Your task to perform on an android device: Open the calendar app, open the side menu, and click the "Day" option Image 0: 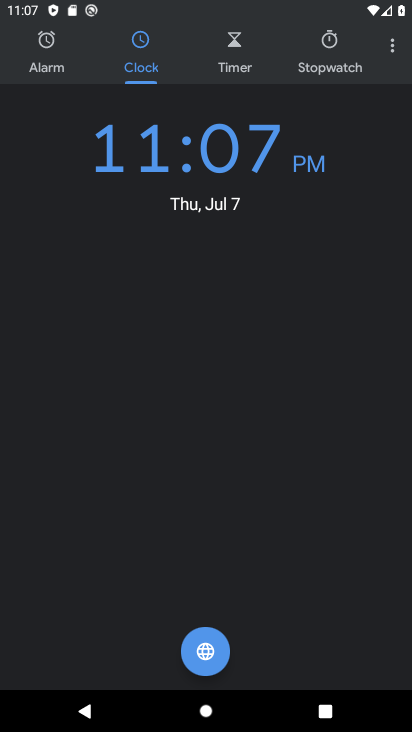
Step 0: press home button
Your task to perform on an android device: Open the calendar app, open the side menu, and click the "Day" option Image 1: 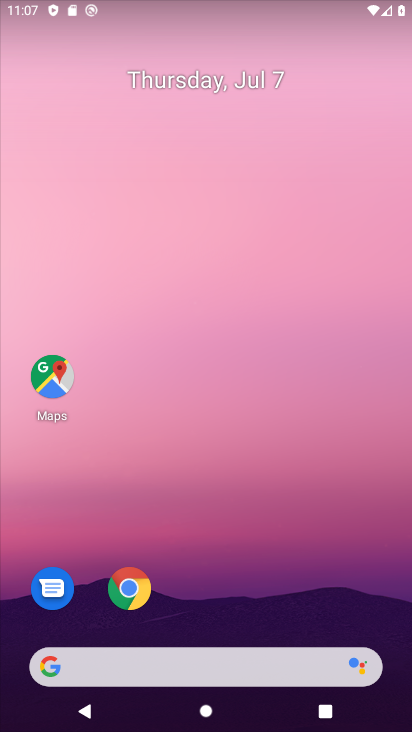
Step 1: drag from (269, 527) to (128, 28)
Your task to perform on an android device: Open the calendar app, open the side menu, and click the "Day" option Image 2: 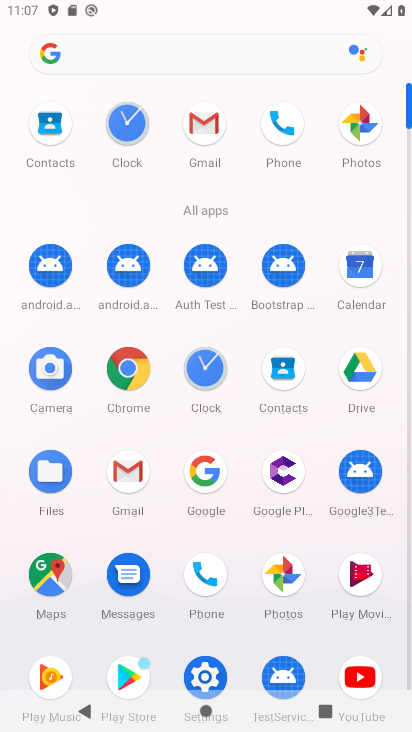
Step 2: click (358, 271)
Your task to perform on an android device: Open the calendar app, open the side menu, and click the "Day" option Image 3: 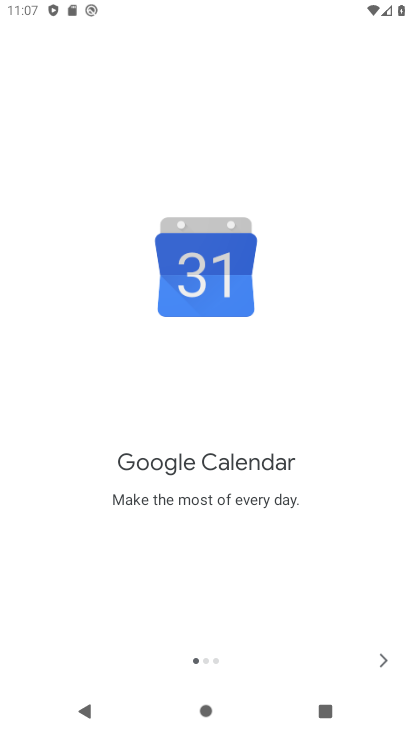
Step 3: click (383, 659)
Your task to perform on an android device: Open the calendar app, open the side menu, and click the "Day" option Image 4: 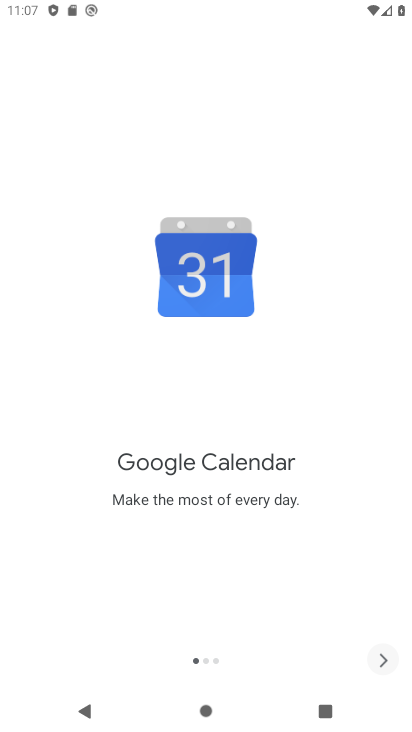
Step 4: click (383, 659)
Your task to perform on an android device: Open the calendar app, open the side menu, and click the "Day" option Image 5: 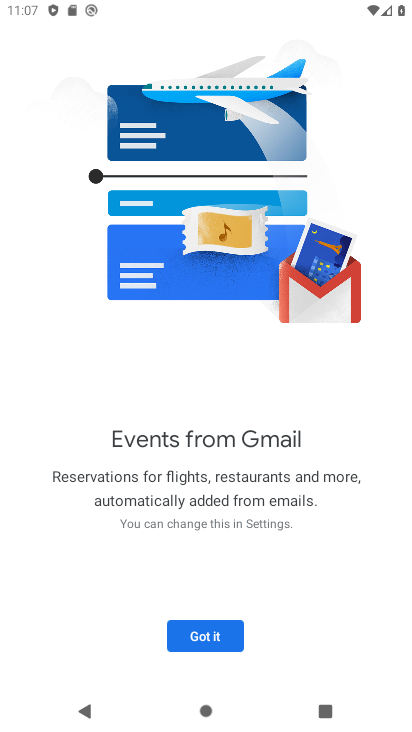
Step 5: click (194, 637)
Your task to perform on an android device: Open the calendar app, open the side menu, and click the "Day" option Image 6: 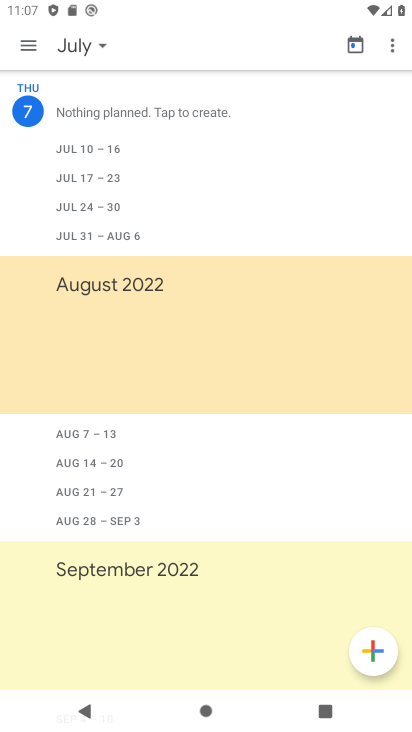
Step 6: click (29, 46)
Your task to perform on an android device: Open the calendar app, open the side menu, and click the "Day" option Image 7: 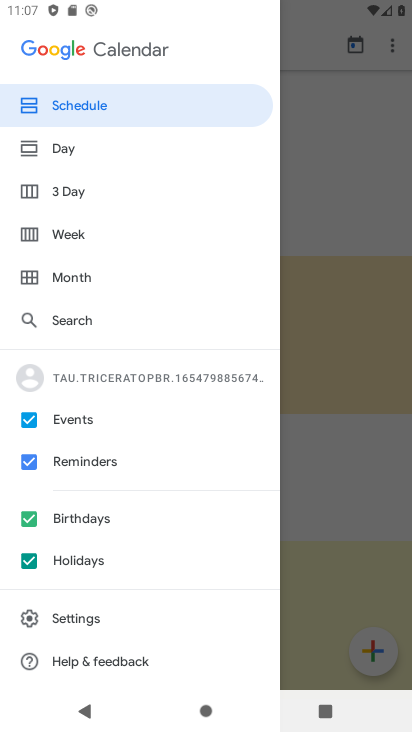
Step 7: click (57, 145)
Your task to perform on an android device: Open the calendar app, open the side menu, and click the "Day" option Image 8: 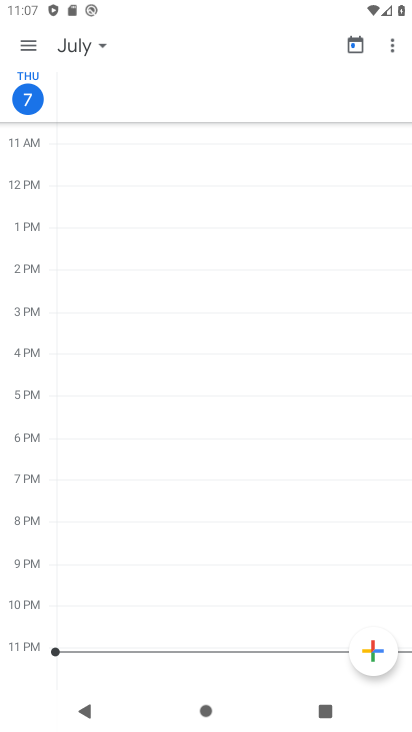
Step 8: task complete